Your task to perform on an android device: Go to Amazon Image 0: 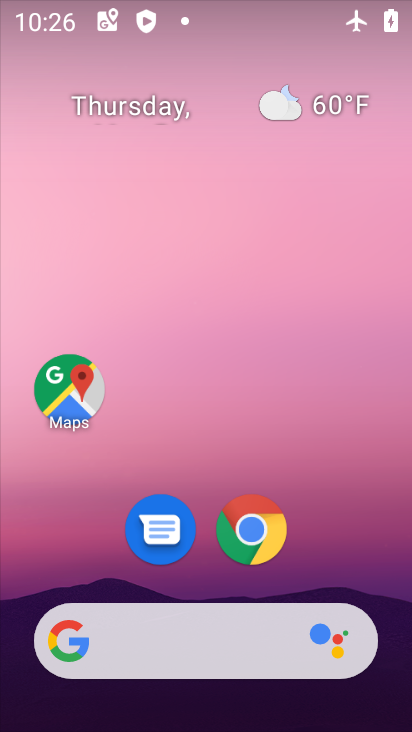
Step 0: drag from (344, 702) to (221, 175)
Your task to perform on an android device: Go to Amazon Image 1: 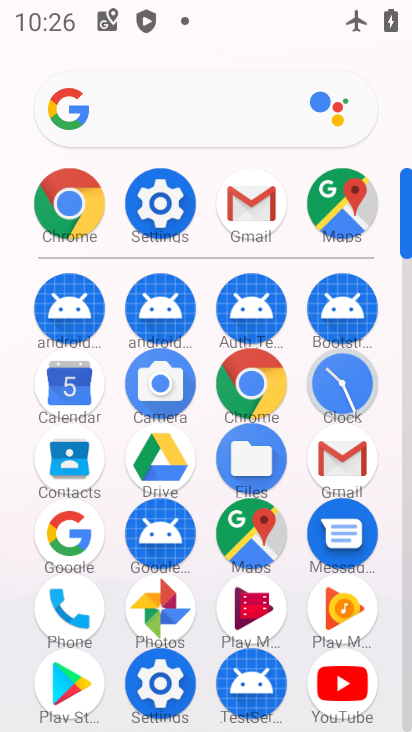
Step 1: click (67, 210)
Your task to perform on an android device: Go to Amazon Image 2: 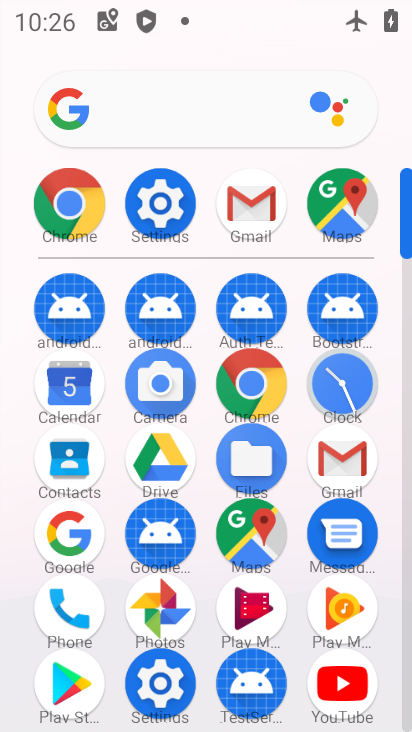
Step 2: click (69, 208)
Your task to perform on an android device: Go to Amazon Image 3: 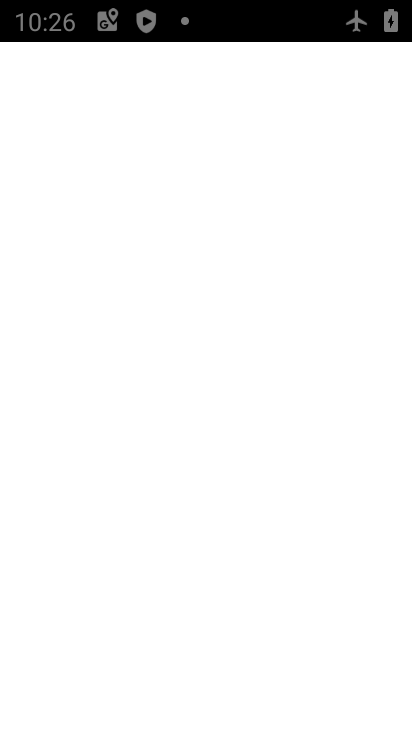
Step 3: click (69, 208)
Your task to perform on an android device: Go to Amazon Image 4: 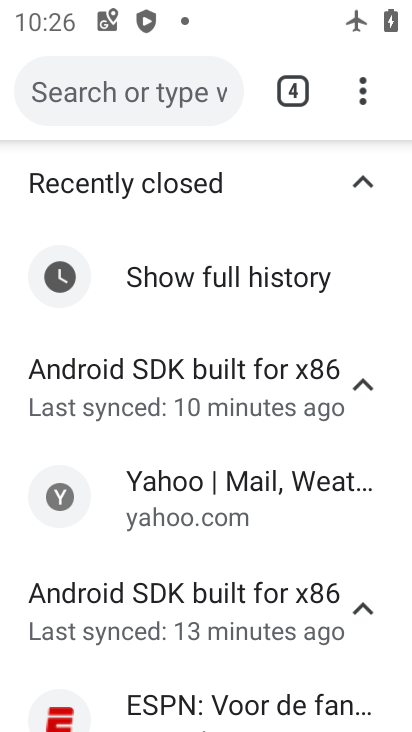
Step 4: click (361, 105)
Your task to perform on an android device: Go to Amazon Image 5: 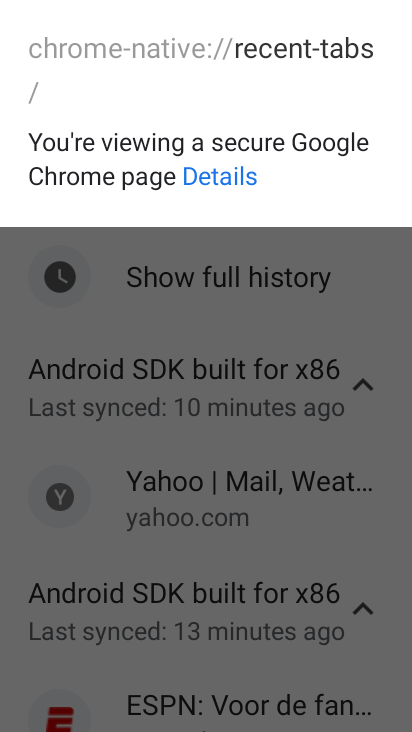
Step 5: click (382, 302)
Your task to perform on an android device: Go to Amazon Image 6: 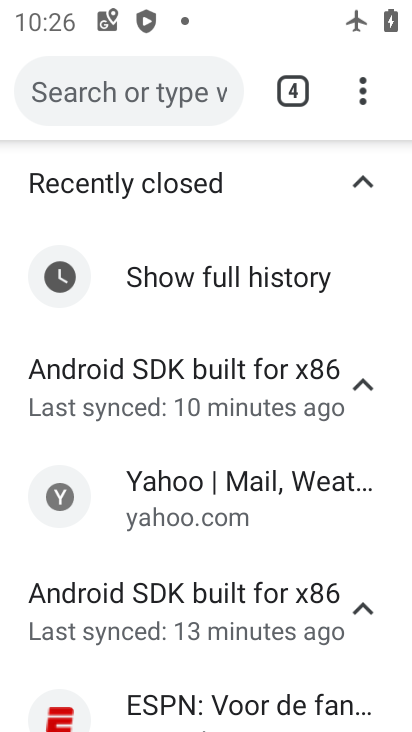
Step 6: press home button
Your task to perform on an android device: Go to Amazon Image 7: 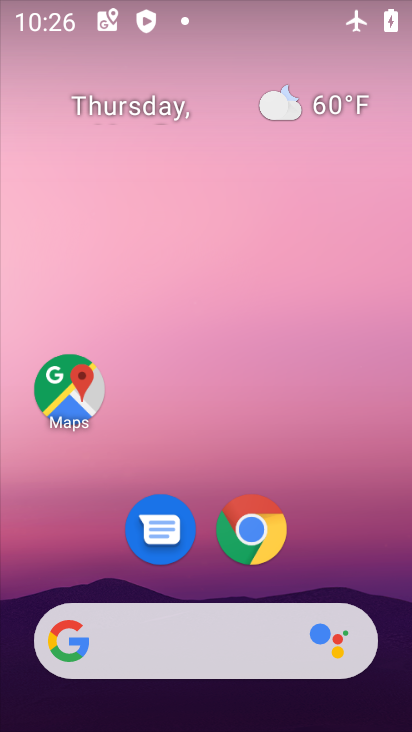
Step 7: drag from (310, 616) to (125, 59)
Your task to perform on an android device: Go to Amazon Image 8: 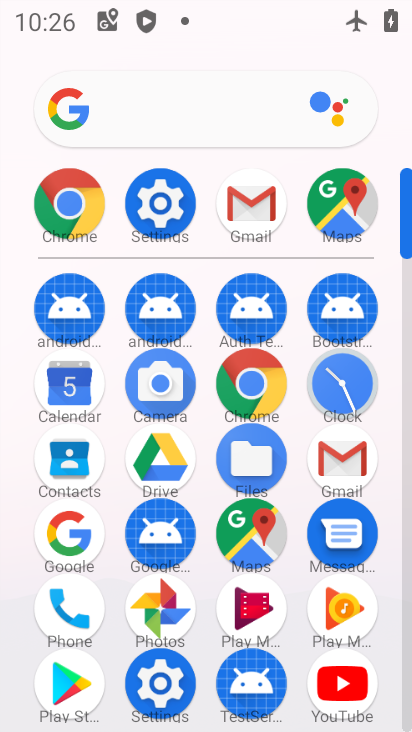
Step 8: click (75, 210)
Your task to perform on an android device: Go to Amazon Image 9: 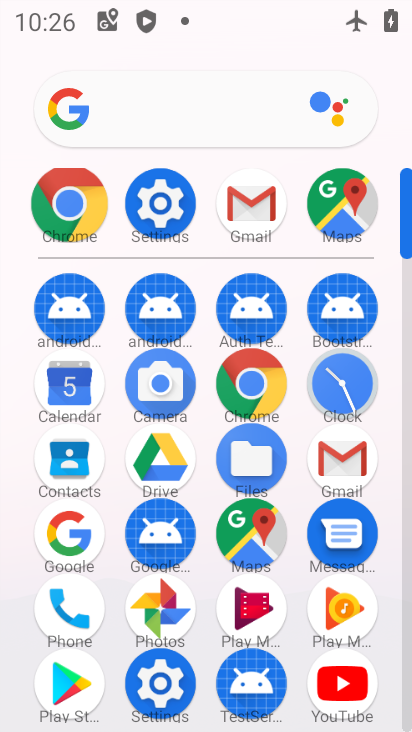
Step 9: click (74, 214)
Your task to perform on an android device: Go to Amazon Image 10: 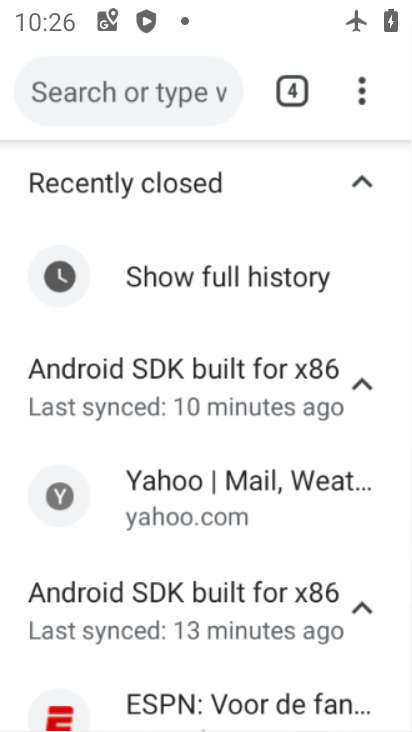
Step 10: click (73, 215)
Your task to perform on an android device: Go to Amazon Image 11: 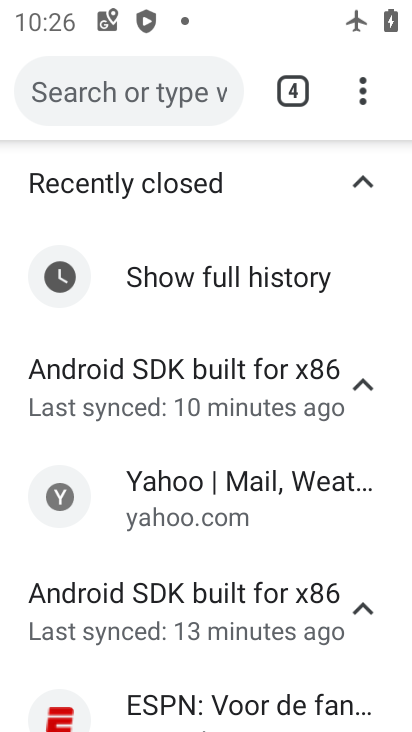
Step 11: click (361, 91)
Your task to perform on an android device: Go to Amazon Image 12: 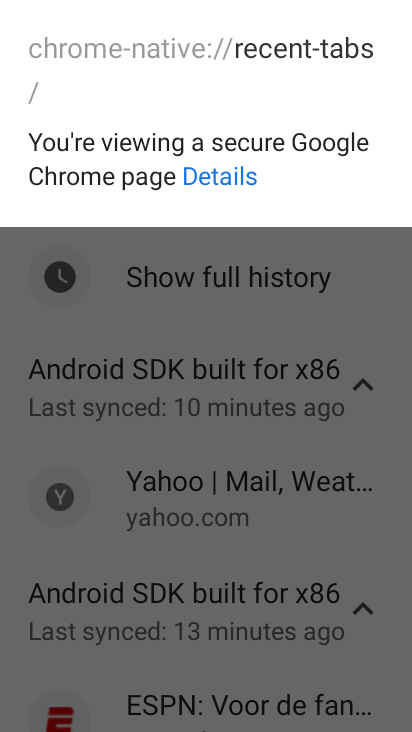
Step 12: click (381, 377)
Your task to perform on an android device: Go to Amazon Image 13: 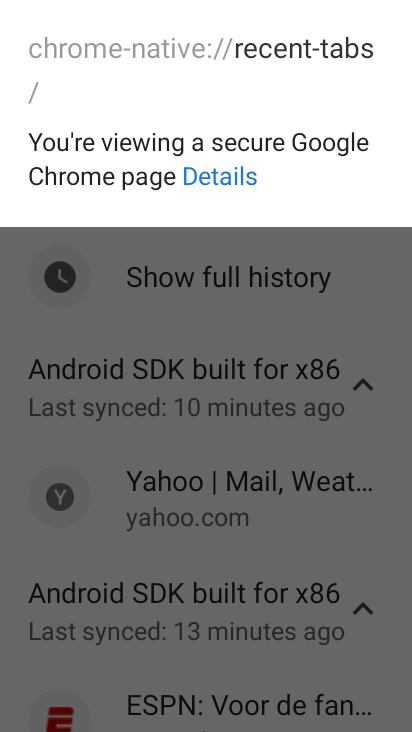
Step 13: click (379, 374)
Your task to perform on an android device: Go to Amazon Image 14: 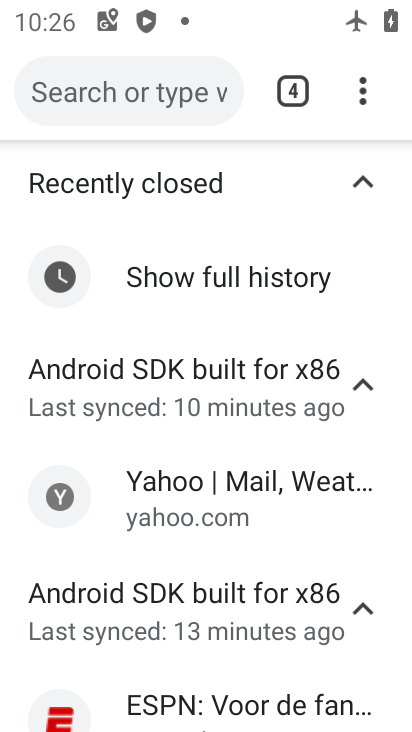
Step 14: press home button
Your task to perform on an android device: Go to Amazon Image 15: 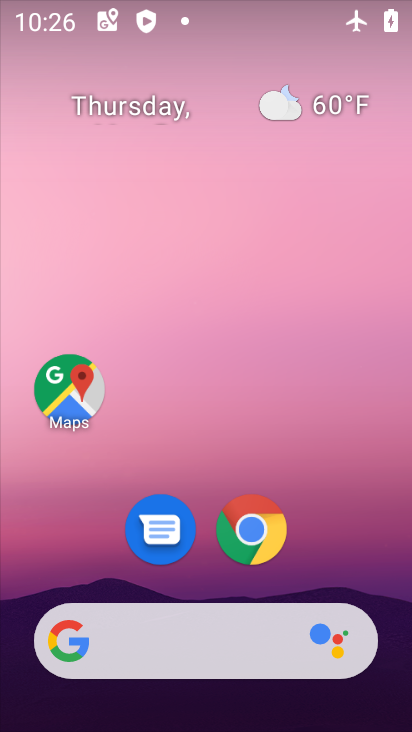
Step 15: drag from (310, 536) to (130, 168)
Your task to perform on an android device: Go to Amazon Image 16: 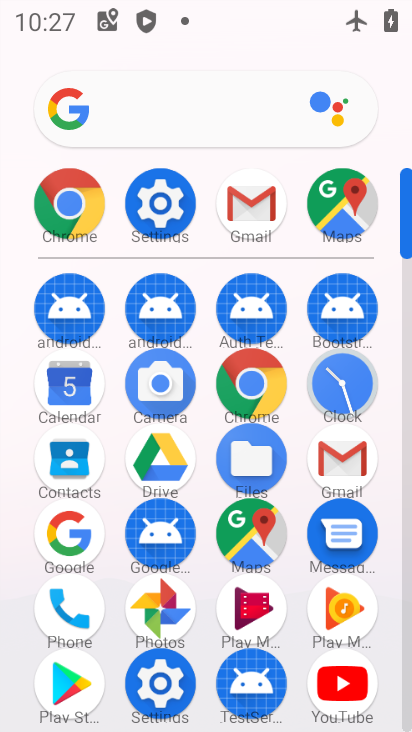
Step 16: click (61, 223)
Your task to perform on an android device: Go to Amazon Image 17: 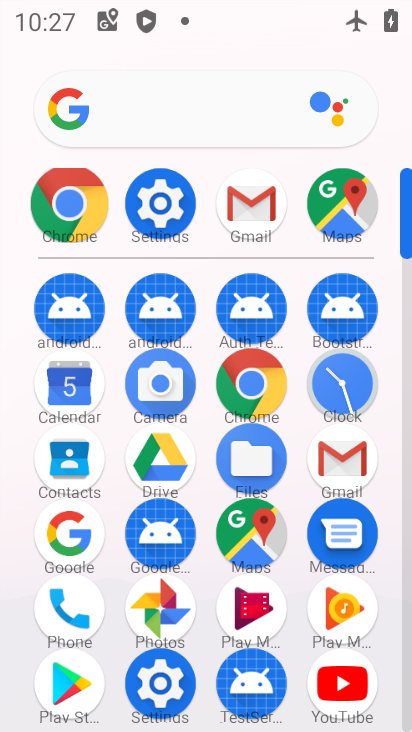
Step 17: click (64, 220)
Your task to perform on an android device: Go to Amazon Image 18: 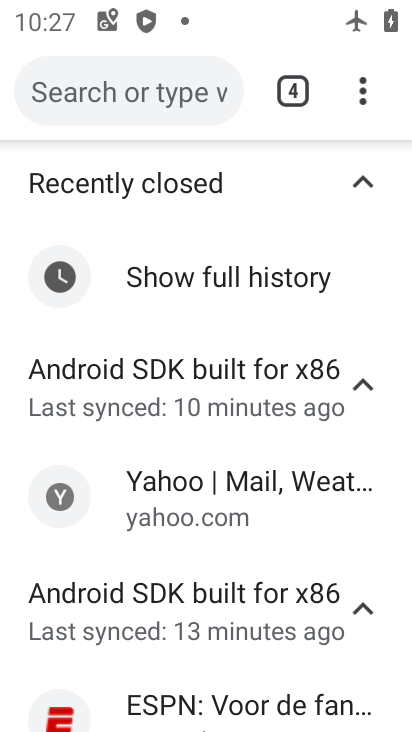
Step 18: click (361, 97)
Your task to perform on an android device: Go to Amazon Image 19: 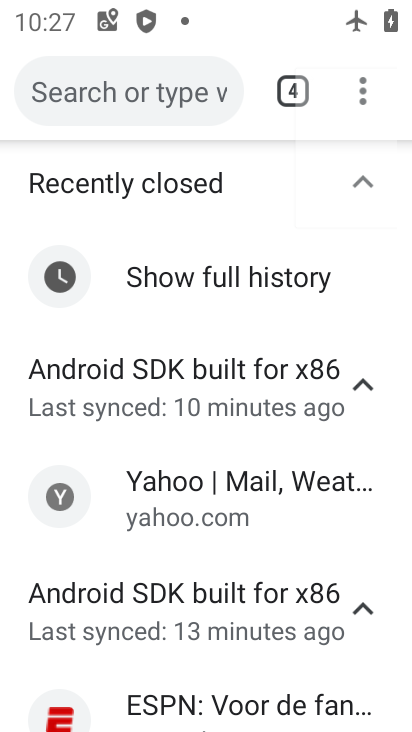
Step 19: click (361, 99)
Your task to perform on an android device: Go to Amazon Image 20: 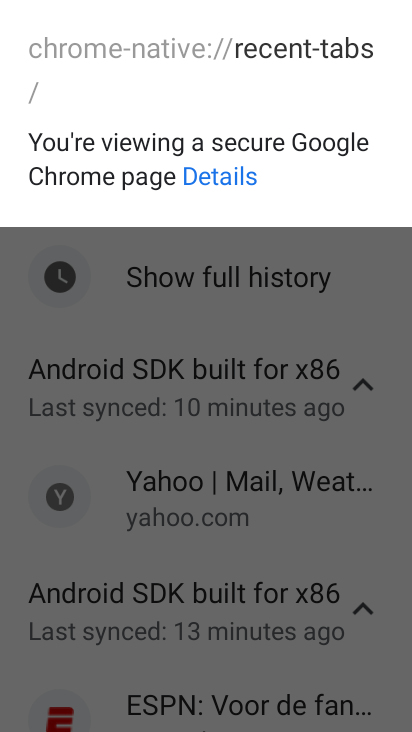
Step 20: click (388, 314)
Your task to perform on an android device: Go to Amazon Image 21: 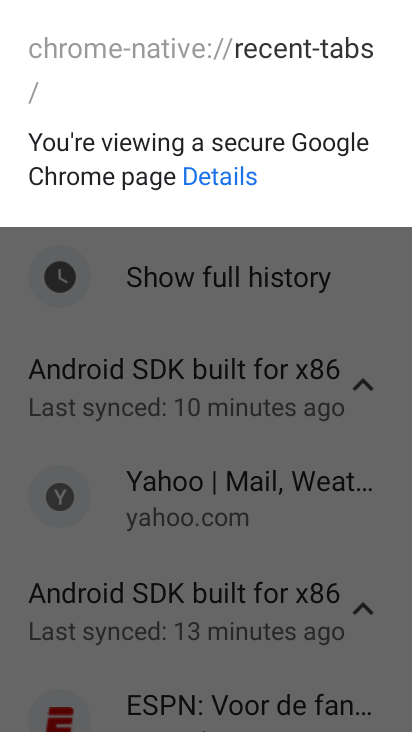
Step 21: click (400, 335)
Your task to perform on an android device: Go to Amazon Image 22: 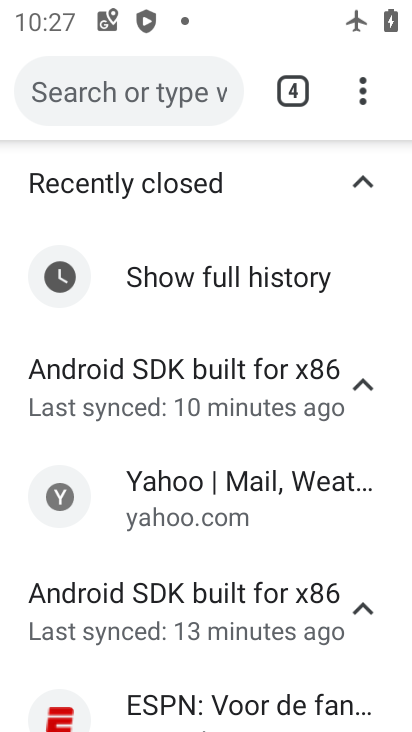
Step 22: drag from (356, 93) to (93, 201)
Your task to perform on an android device: Go to Amazon Image 23: 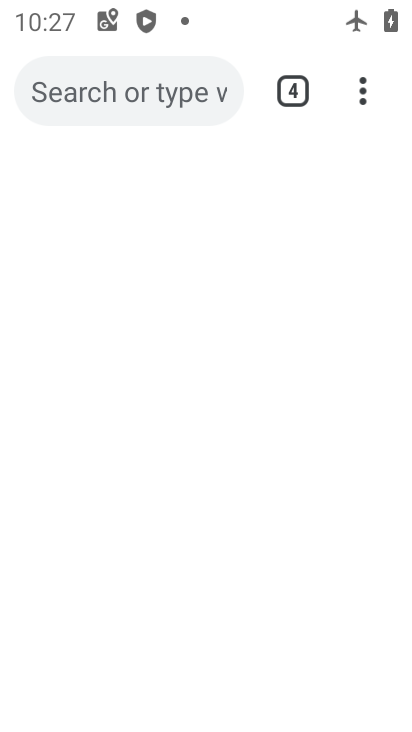
Step 23: click (90, 188)
Your task to perform on an android device: Go to Amazon Image 24: 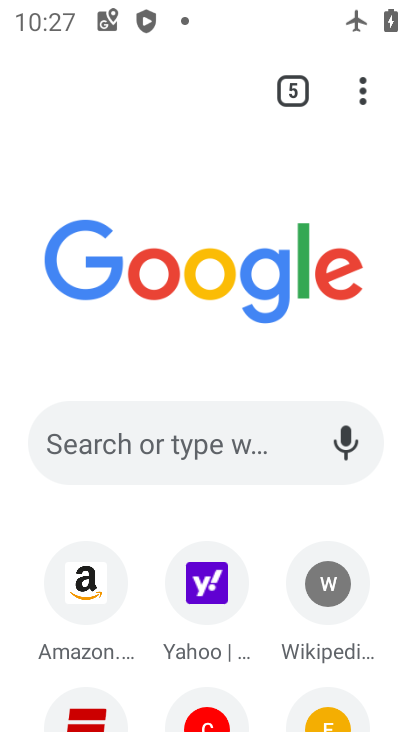
Step 24: click (90, 188)
Your task to perform on an android device: Go to Amazon Image 25: 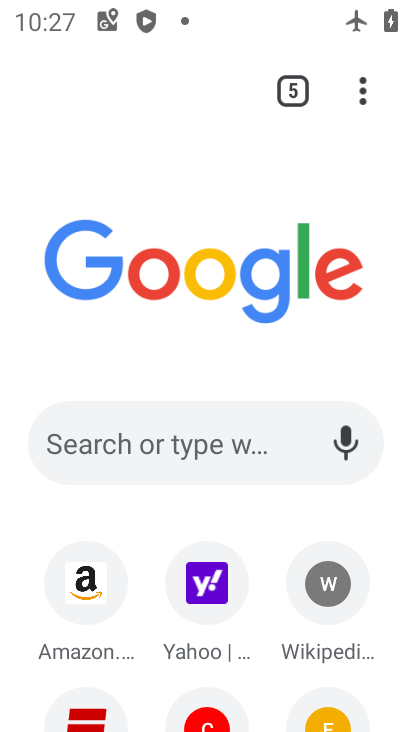
Step 25: click (90, 188)
Your task to perform on an android device: Go to Amazon Image 26: 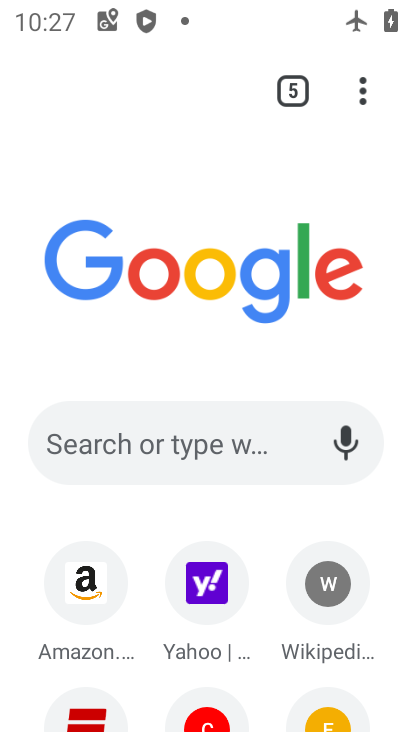
Step 26: click (85, 589)
Your task to perform on an android device: Go to Amazon Image 27: 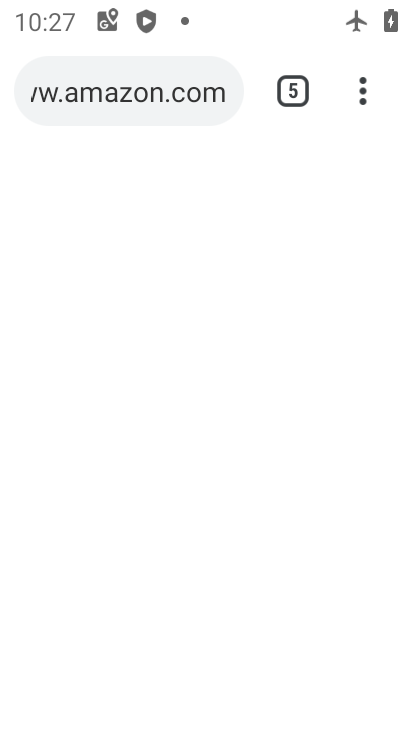
Step 27: click (80, 594)
Your task to perform on an android device: Go to Amazon Image 28: 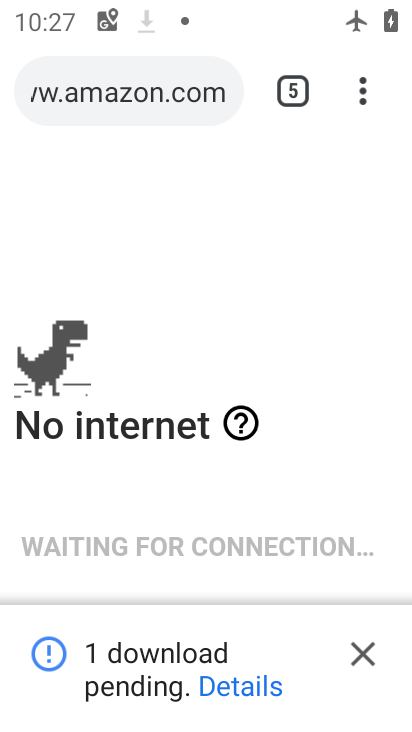
Step 28: task complete